Your task to perform on an android device: Search for electric lawnmowers on Home Depot Image 0: 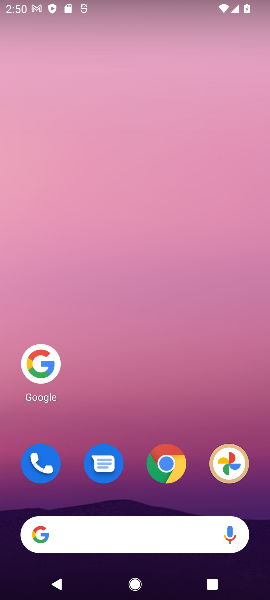
Step 0: click (49, 366)
Your task to perform on an android device: Search for electric lawnmowers on Home Depot Image 1: 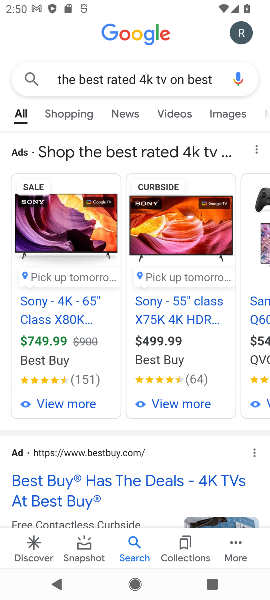
Step 1: click (215, 71)
Your task to perform on an android device: Search for electric lawnmowers on Home Depot Image 2: 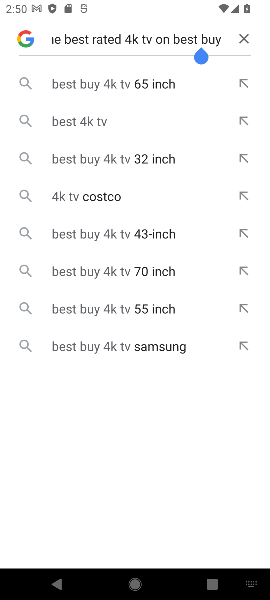
Step 2: click (253, 36)
Your task to perform on an android device: Search for electric lawnmowers on Home Depot Image 3: 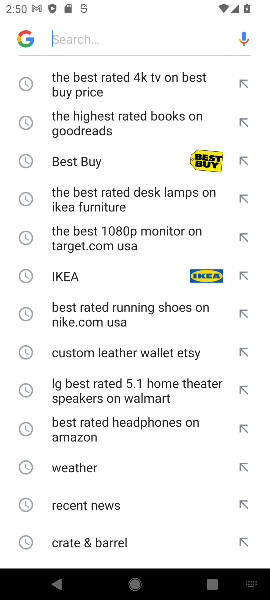
Step 3: click (101, 22)
Your task to perform on an android device: Search for electric lawnmowers on Home Depot Image 4: 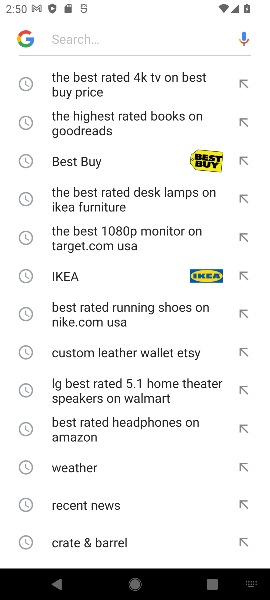
Step 4: type " electric lawnmowers on Home Depot "
Your task to perform on an android device: Search for electric lawnmowers on Home Depot Image 5: 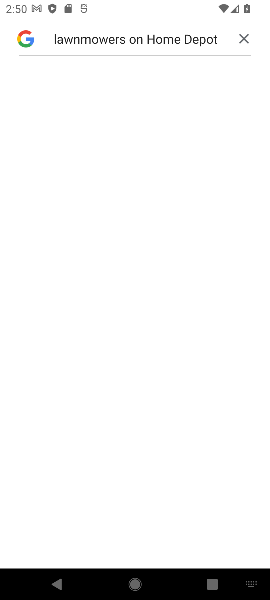
Step 5: click (215, 40)
Your task to perform on an android device: Search for electric lawnmowers on Home Depot Image 6: 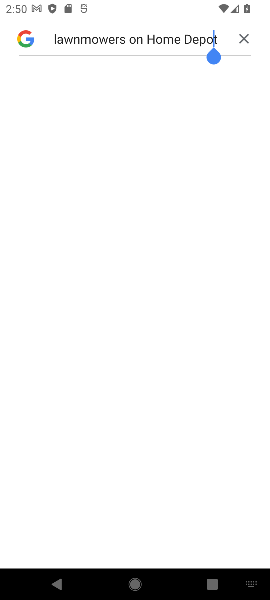
Step 6: click (207, 33)
Your task to perform on an android device: Search for electric lawnmowers on Home Depot Image 7: 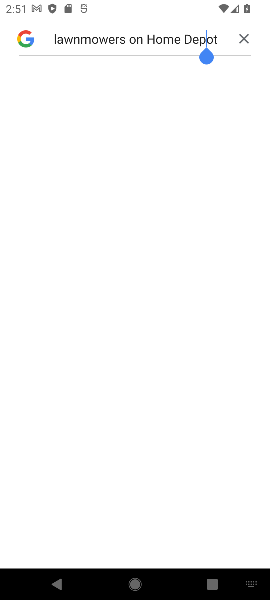
Step 7: click (218, 39)
Your task to perform on an android device: Search for electric lawnmowers on Home Depot Image 8: 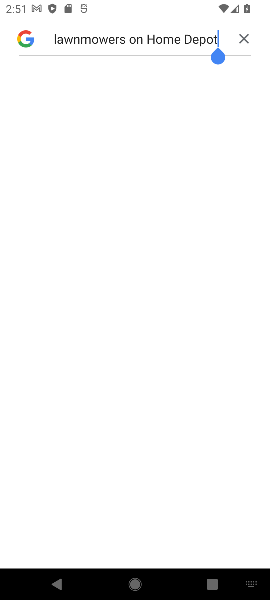
Step 8: click (245, 39)
Your task to perform on an android device: Search for electric lawnmowers on Home Depot Image 9: 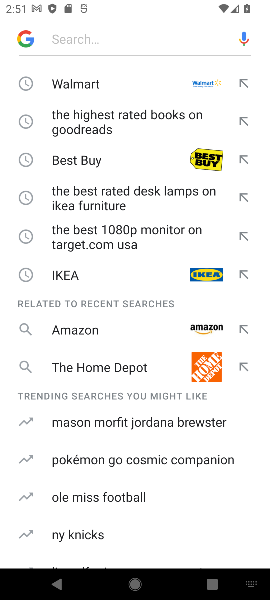
Step 9: click (144, 28)
Your task to perform on an android device: Search for electric lawnmowers on Home Depot Image 10: 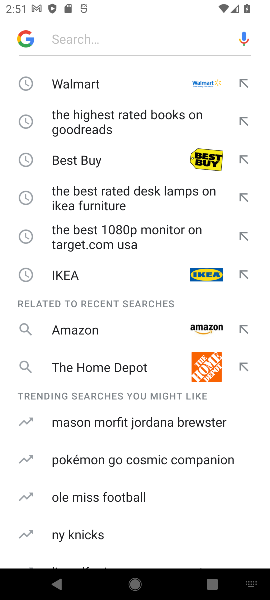
Step 10: type " electric lawnmowers on Home Depot "
Your task to perform on an android device: Search for electric lawnmowers on Home Depot Image 11: 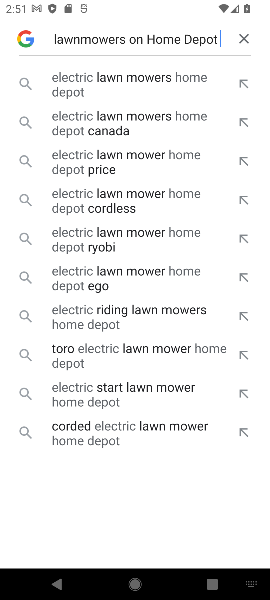
Step 11: click (112, 78)
Your task to perform on an android device: Search for electric lawnmowers on Home Depot Image 12: 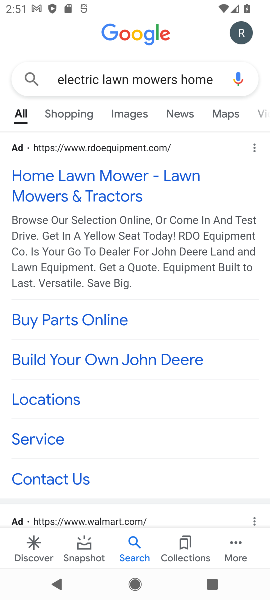
Step 12: click (102, 179)
Your task to perform on an android device: Search for electric lawnmowers on Home Depot Image 13: 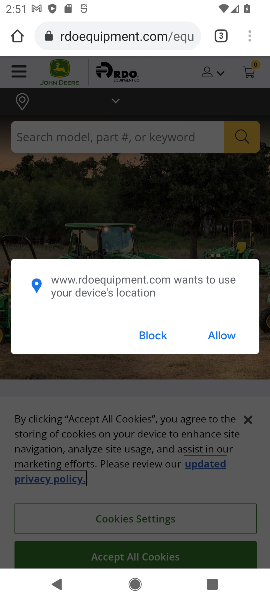
Step 13: click (238, 336)
Your task to perform on an android device: Search for electric lawnmowers on Home Depot Image 14: 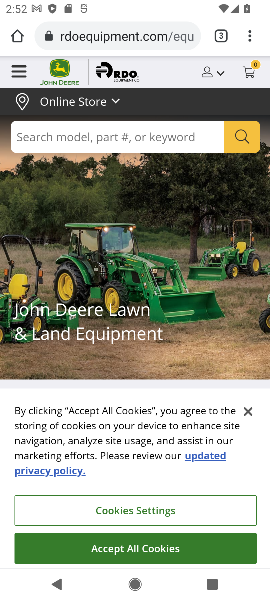
Step 14: task complete